Your task to perform on an android device: What's the latest news in tech? Image 0: 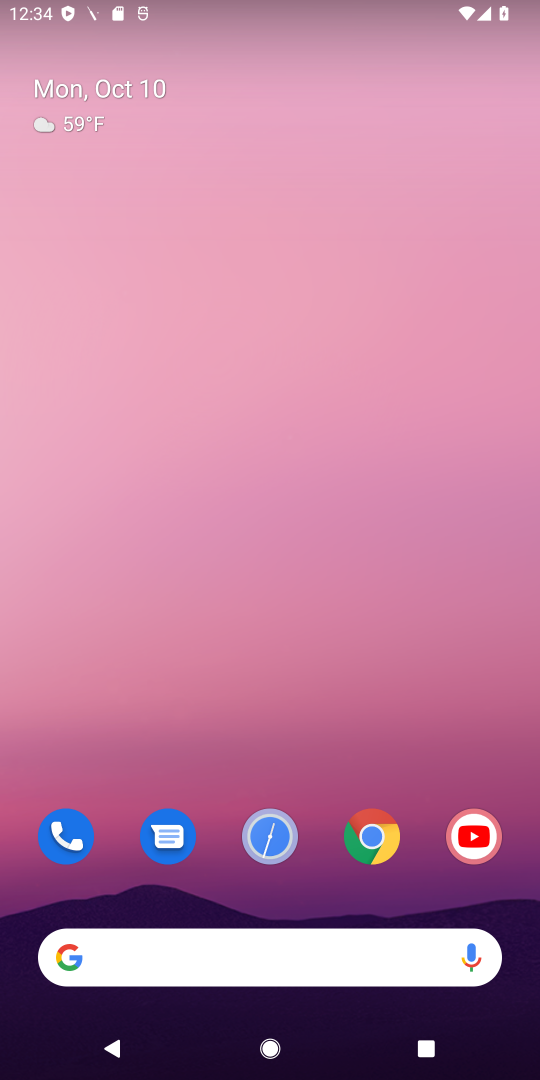
Step 0: click (387, 833)
Your task to perform on an android device: What's the latest news in tech? Image 1: 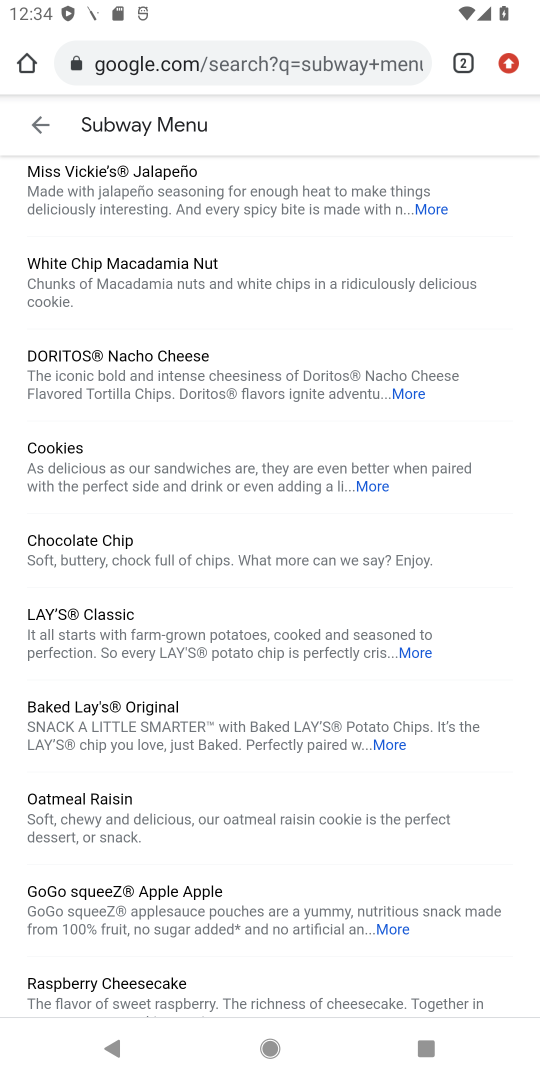
Step 1: click (187, 61)
Your task to perform on an android device: What's the latest news in tech? Image 2: 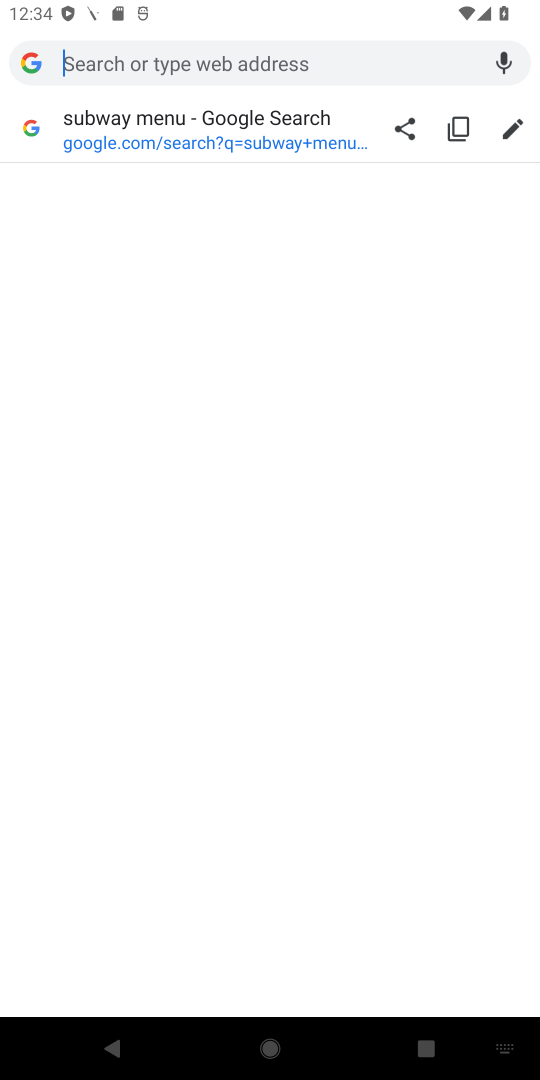
Step 2: type "latest news in tech"
Your task to perform on an android device: What's the latest news in tech? Image 3: 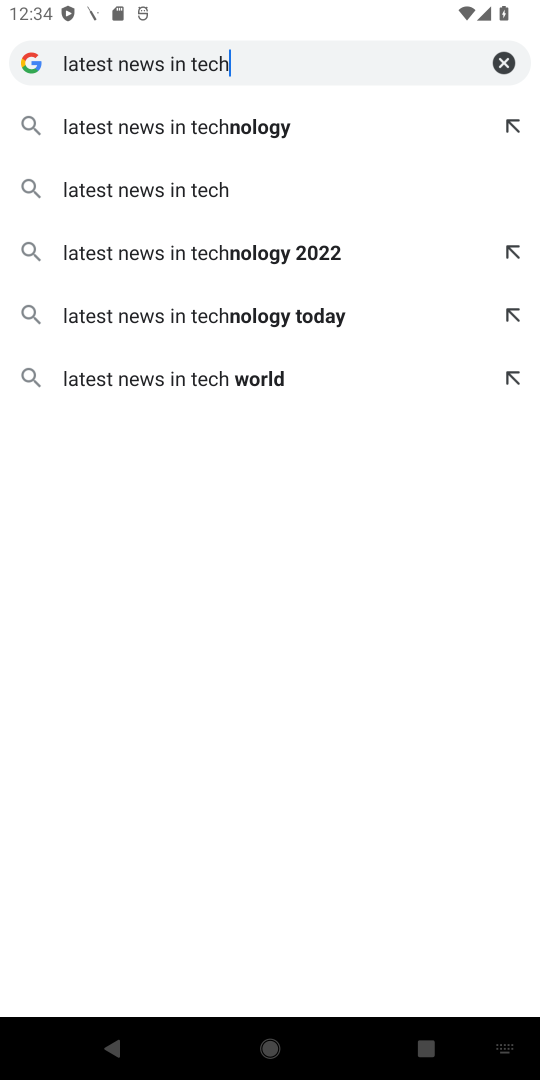
Step 3: click (259, 127)
Your task to perform on an android device: What's the latest news in tech? Image 4: 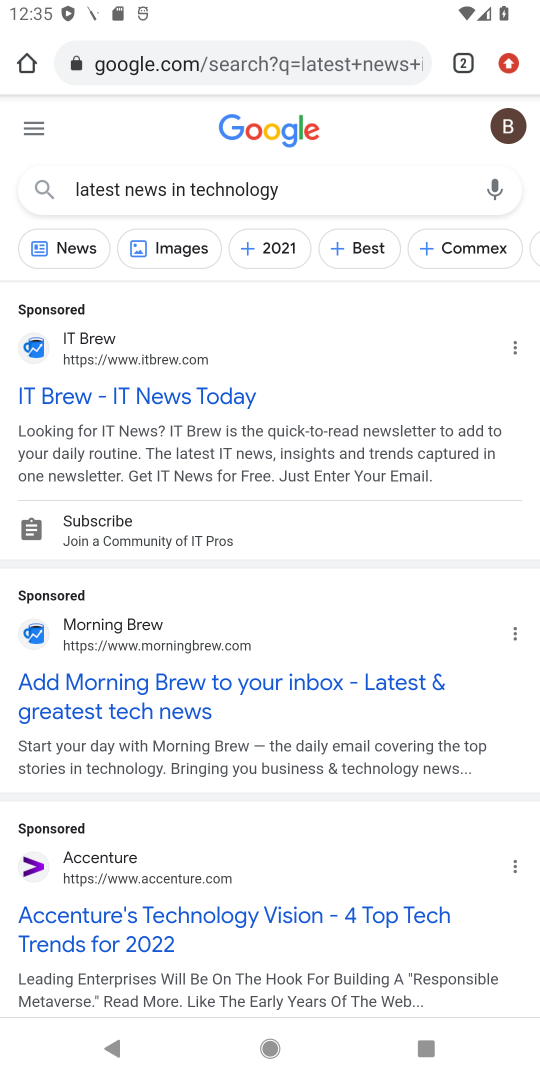
Step 4: click (83, 249)
Your task to perform on an android device: What's the latest news in tech? Image 5: 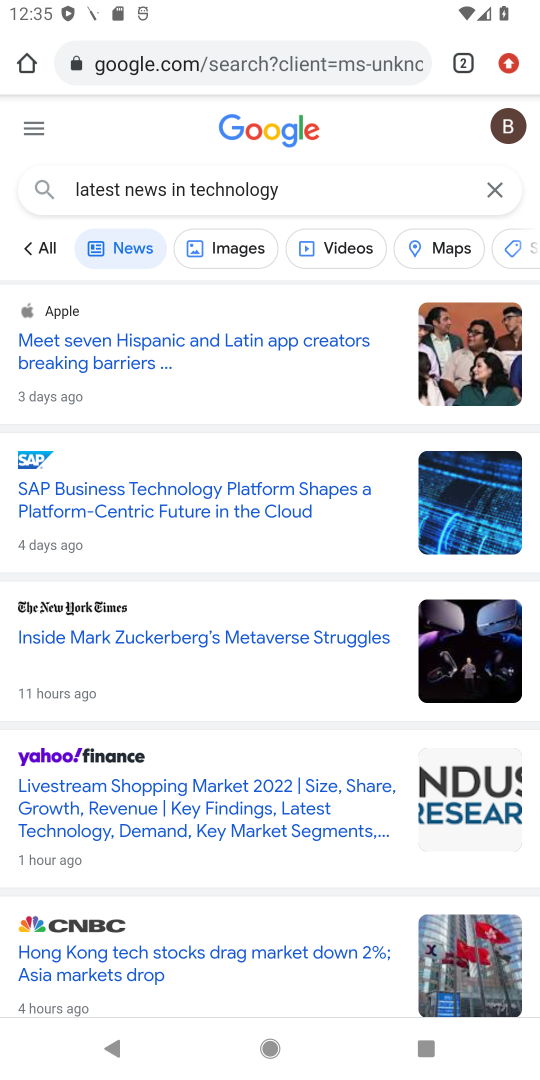
Step 5: task complete